Your task to perform on an android device: Open CNN.com Image 0: 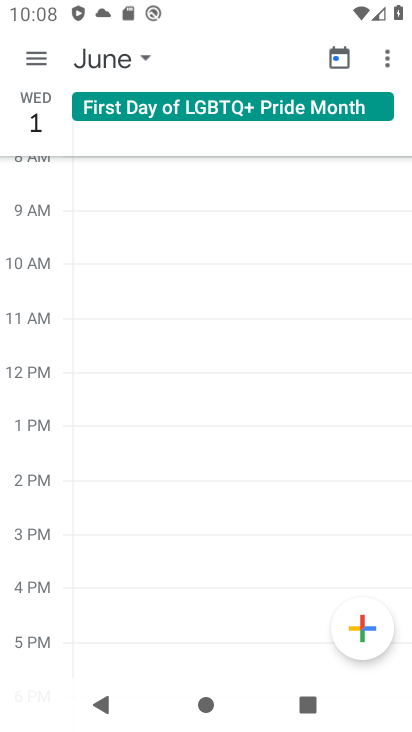
Step 0: press home button
Your task to perform on an android device: Open CNN.com Image 1: 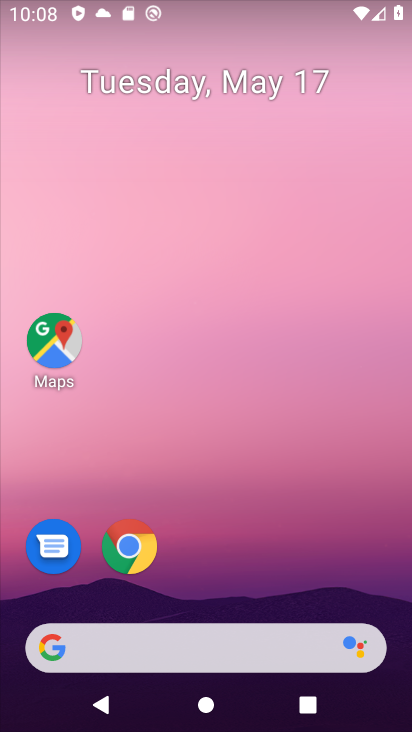
Step 1: click (127, 539)
Your task to perform on an android device: Open CNN.com Image 2: 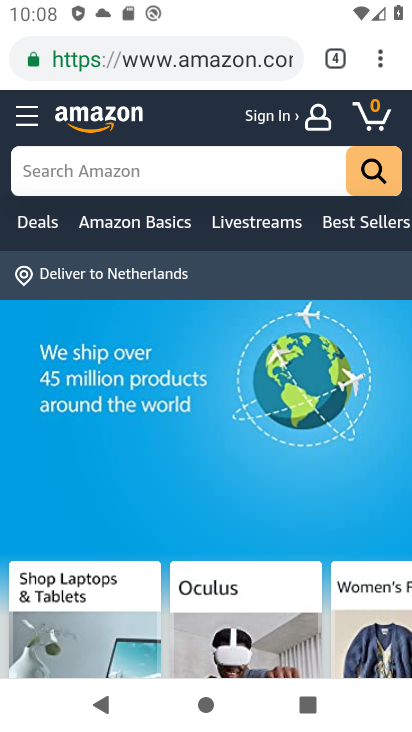
Step 2: click (378, 53)
Your task to perform on an android device: Open CNN.com Image 3: 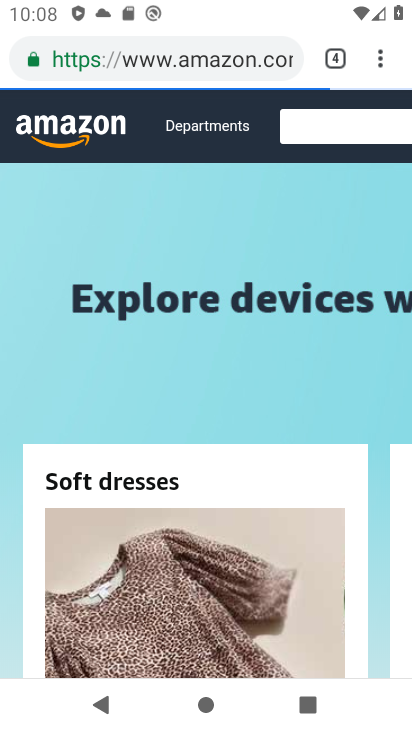
Step 3: click (372, 59)
Your task to perform on an android device: Open CNN.com Image 4: 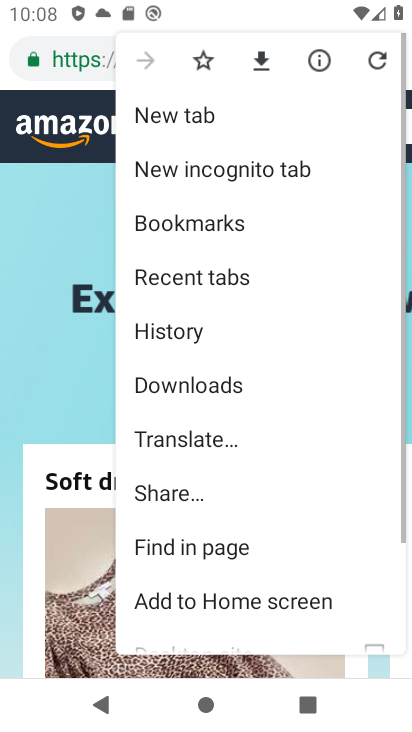
Step 4: click (201, 112)
Your task to perform on an android device: Open CNN.com Image 5: 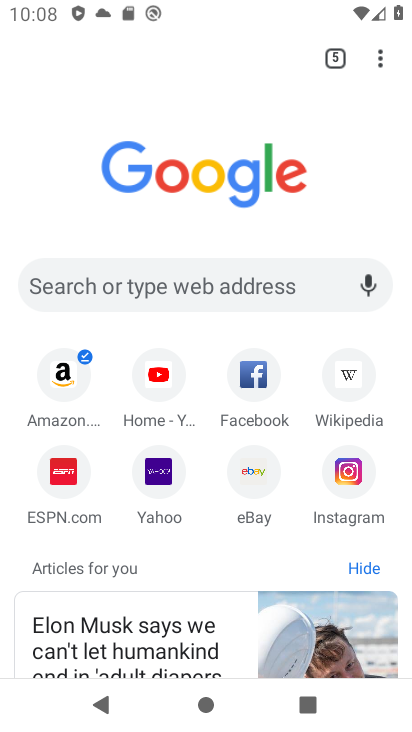
Step 5: click (210, 281)
Your task to perform on an android device: Open CNN.com Image 6: 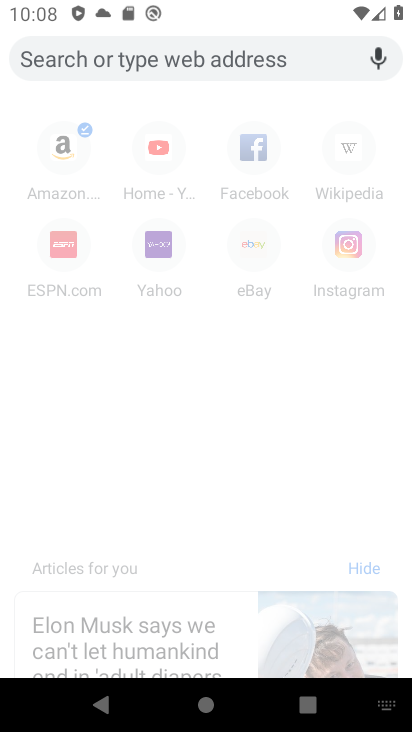
Step 6: type "CNN.com"
Your task to perform on an android device: Open CNN.com Image 7: 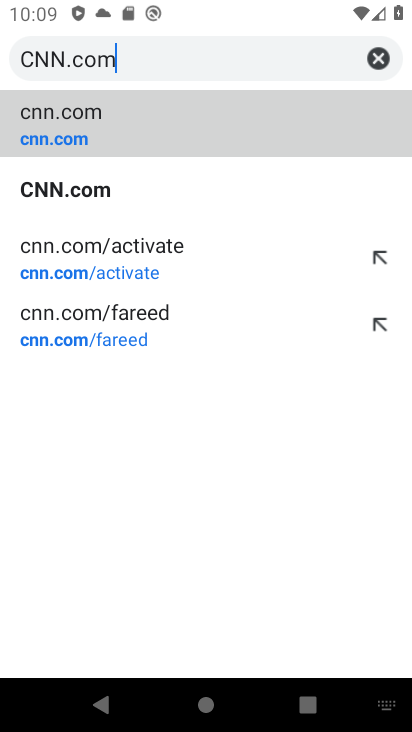
Step 7: click (156, 196)
Your task to perform on an android device: Open CNN.com Image 8: 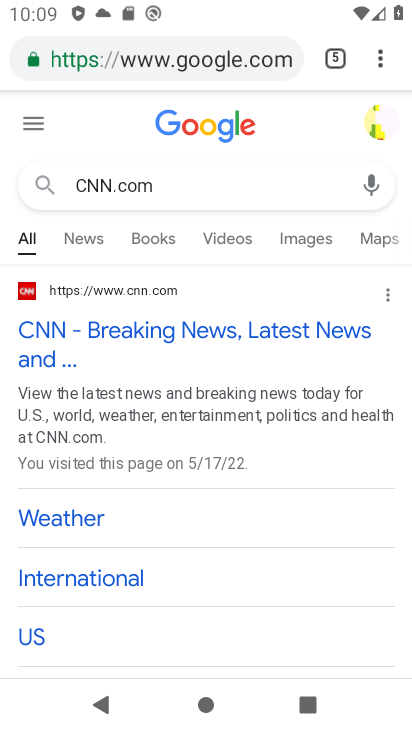
Step 8: task complete